Your task to perform on an android device: turn off translation in the chrome app Image 0: 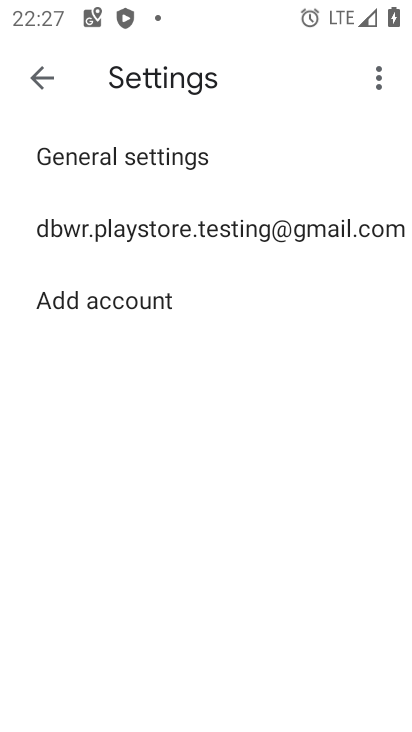
Step 0: press home button
Your task to perform on an android device: turn off translation in the chrome app Image 1: 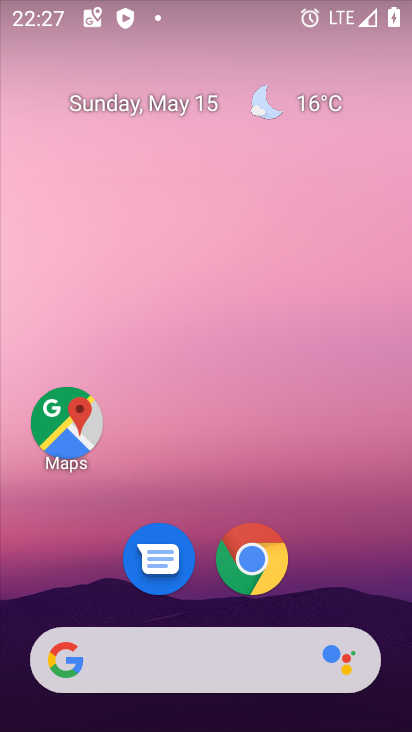
Step 1: click (254, 566)
Your task to perform on an android device: turn off translation in the chrome app Image 2: 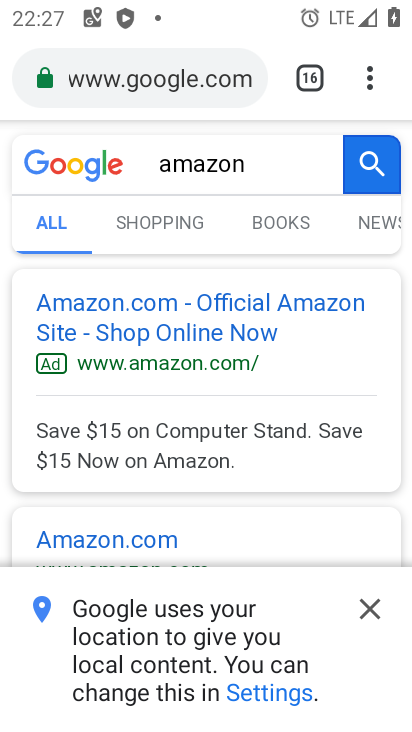
Step 2: click (371, 78)
Your task to perform on an android device: turn off translation in the chrome app Image 3: 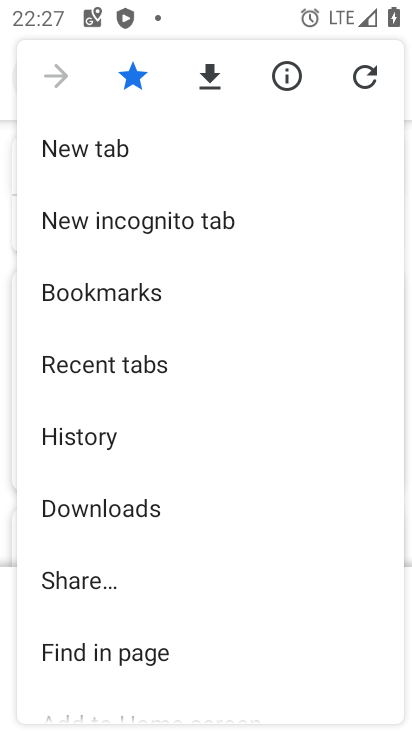
Step 3: drag from (204, 554) to (131, 237)
Your task to perform on an android device: turn off translation in the chrome app Image 4: 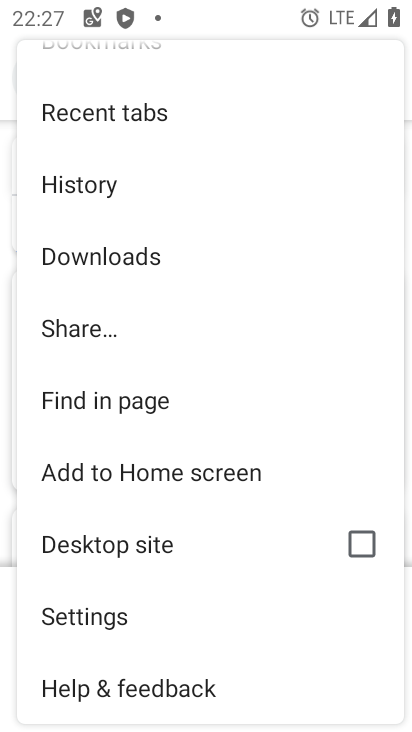
Step 4: click (92, 620)
Your task to perform on an android device: turn off translation in the chrome app Image 5: 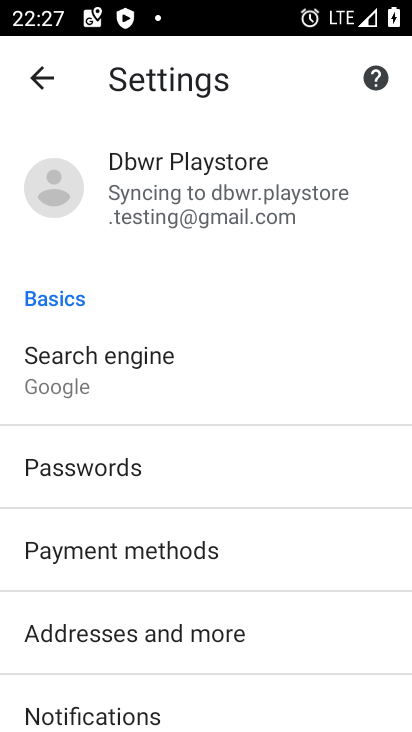
Step 5: drag from (258, 585) to (240, 289)
Your task to perform on an android device: turn off translation in the chrome app Image 6: 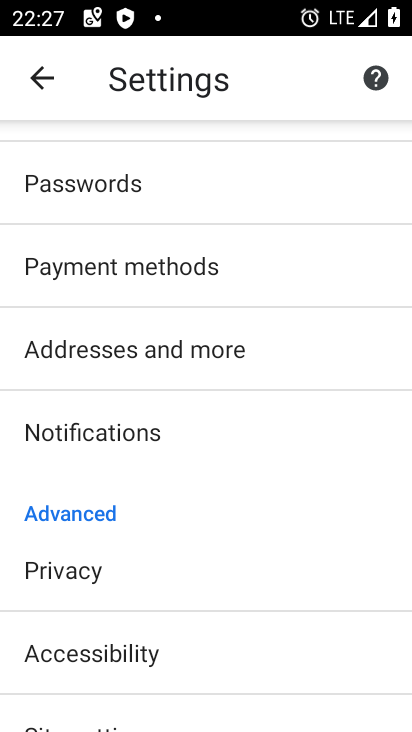
Step 6: click (214, 275)
Your task to perform on an android device: turn off translation in the chrome app Image 7: 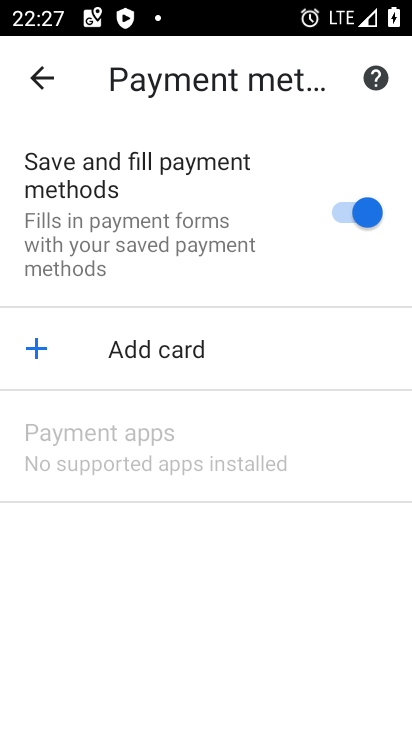
Step 7: click (41, 84)
Your task to perform on an android device: turn off translation in the chrome app Image 8: 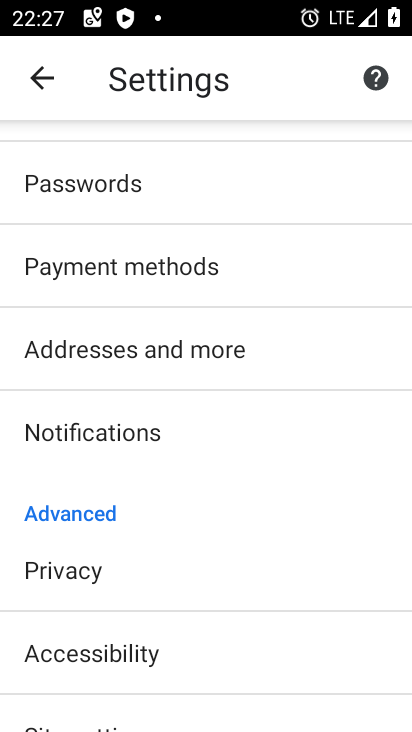
Step 8: drag from (179, 489) to (178, 227)
Your task to perform on an android device: turn off translation in the chrome app Image 9: 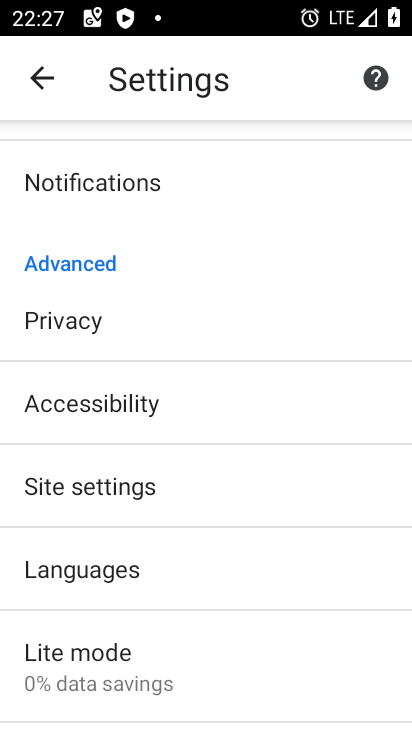
Step 9: click (99, 560)
Your task to perform on an android device: turn off translation in the chrome app Image 10: 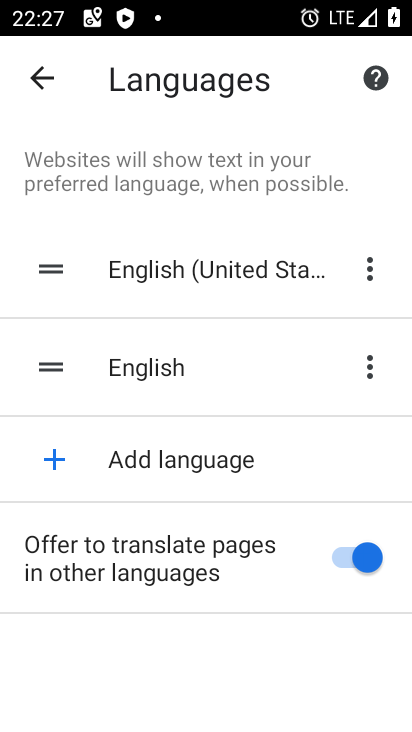
Step 10: click (354, 566)
Your task to perform on an android device: turn off translation in the chrome app Image 11: 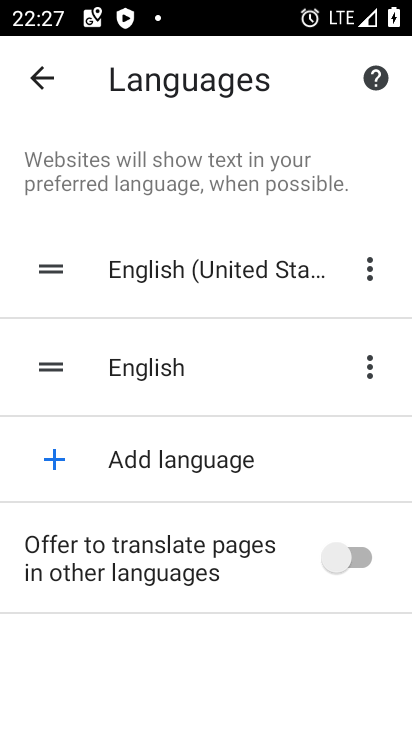
Step 11: task complete